Your task to perform on an android device: Go to ESPN.com Image 0: 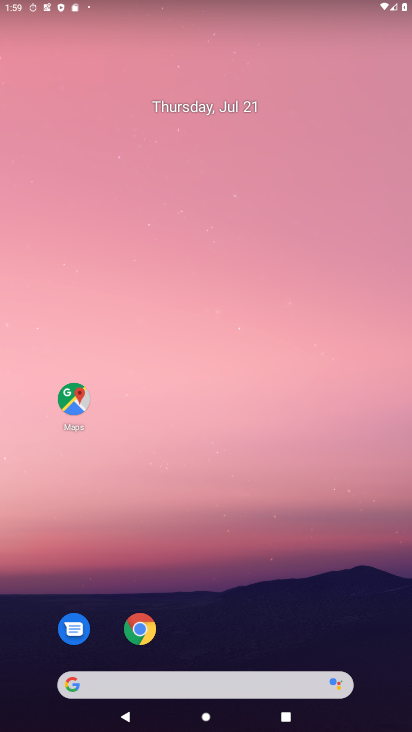
Step 0: click (104, 681)
Your task to perform on an android device: Go to ESPN.com Image 1: 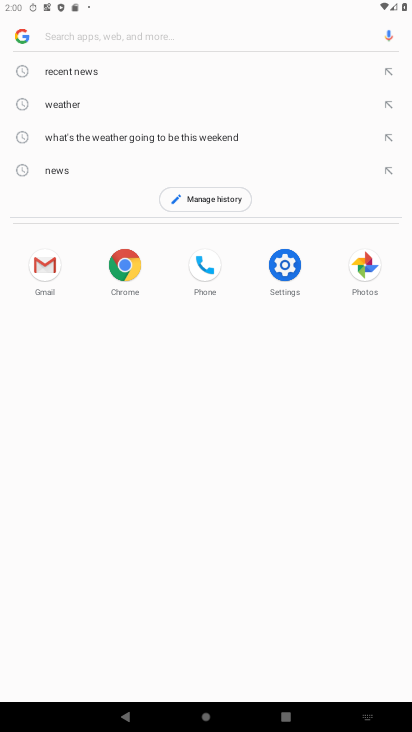
Step 1: type "ESPN.com"
Your task to perform on an android device: Go to ESPN.com Image 2: 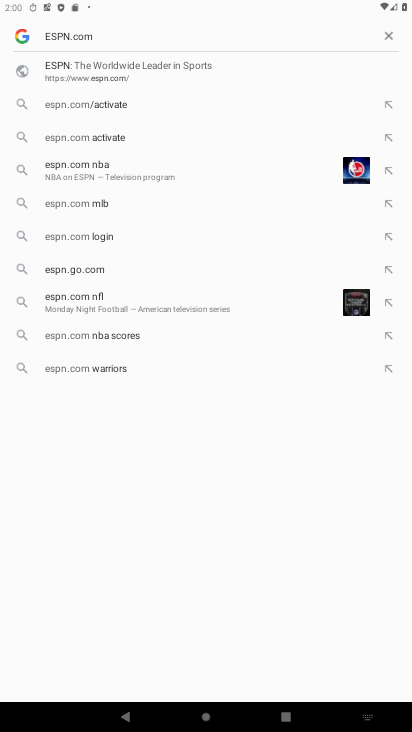
Step 2: click (99, 71)
Your task to perform on an android device: Go to ESPN.com Image 3: 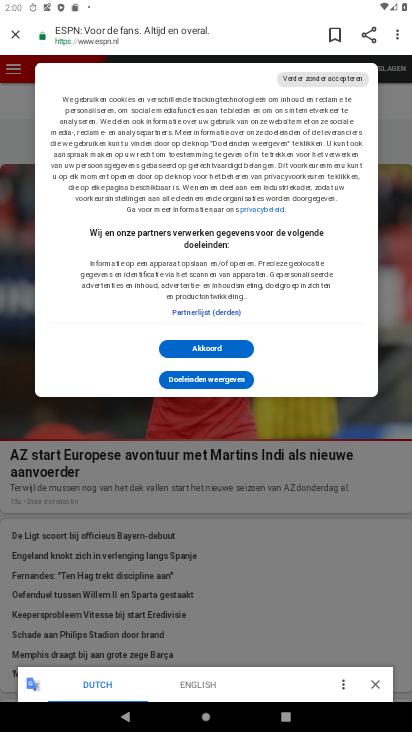
Step 3: task complete